Your task to perform on an android device: Check the weather Image 0: 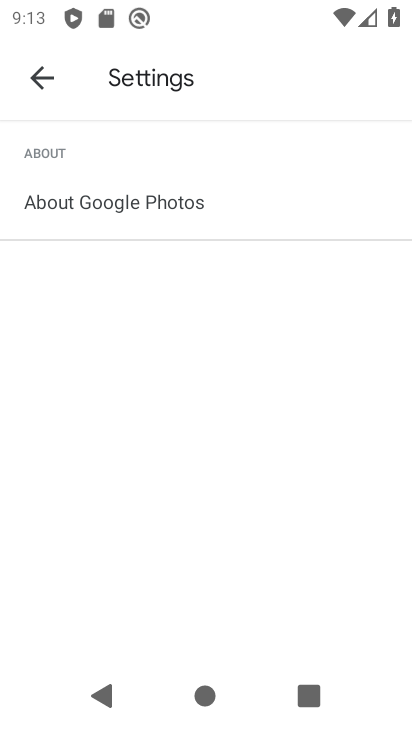
Step 0: press home button
Your task to perform on an android device: Check the weather Image 1: 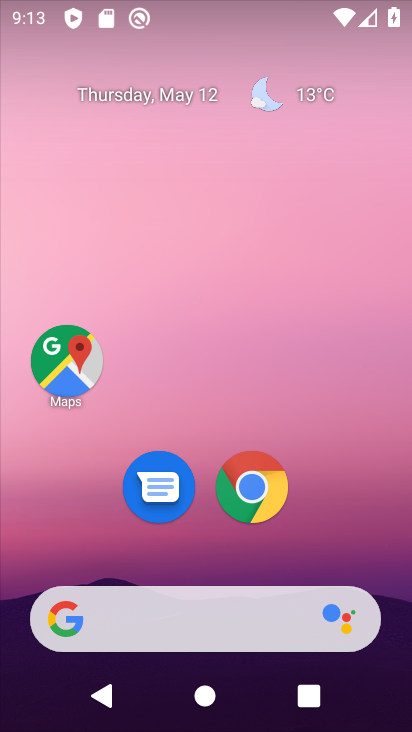
Step 1: click (310, 92)
Your task to perform on an android device: Check the weather Image 2: 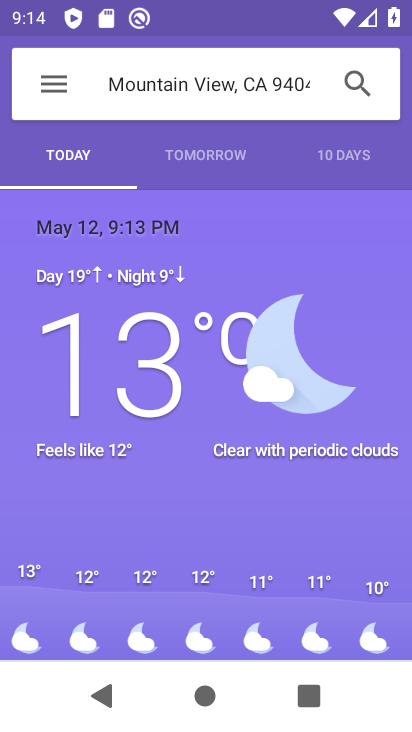
Step 2: task complete